Your task to perform on an android device: toggle pop-ups in chrome Image 0: 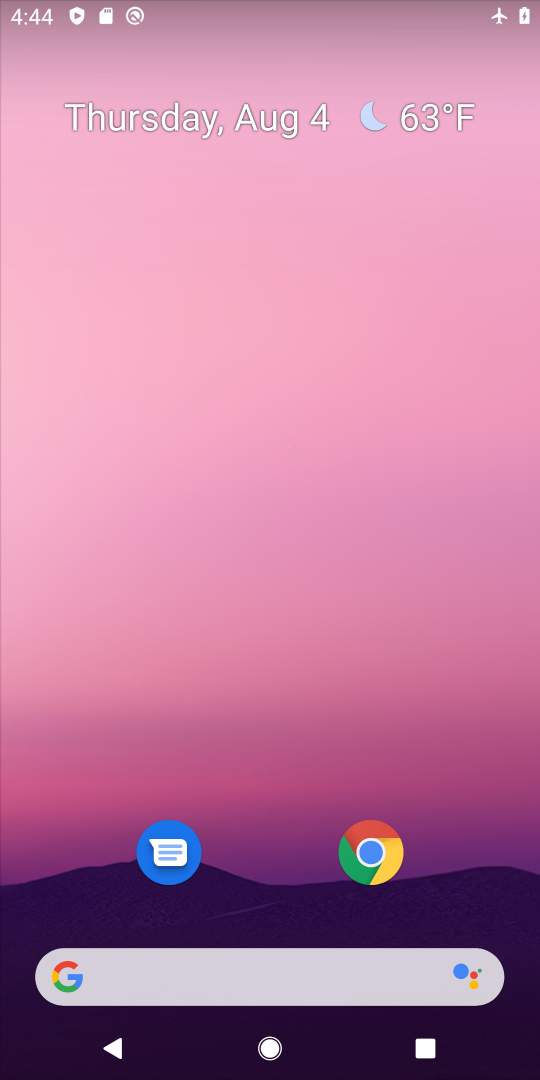
Step 0: click (399, 847)
Your task to perform on an android device: toggle pop-ups in chrome Image 1: 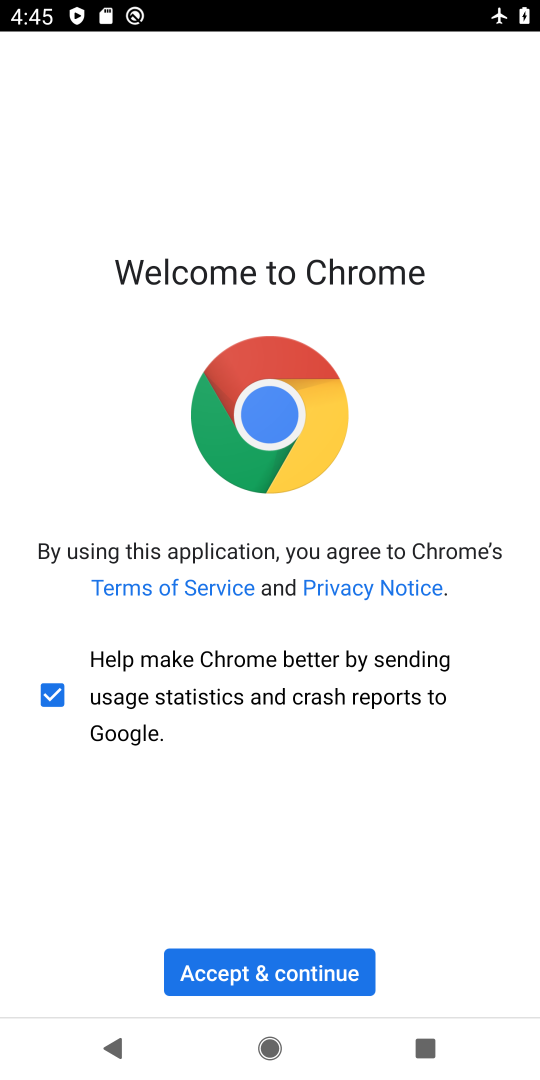
Step 1: click (303, 979)
Your task to perform on an android device: toggle pop-ups in chrome Image 2: 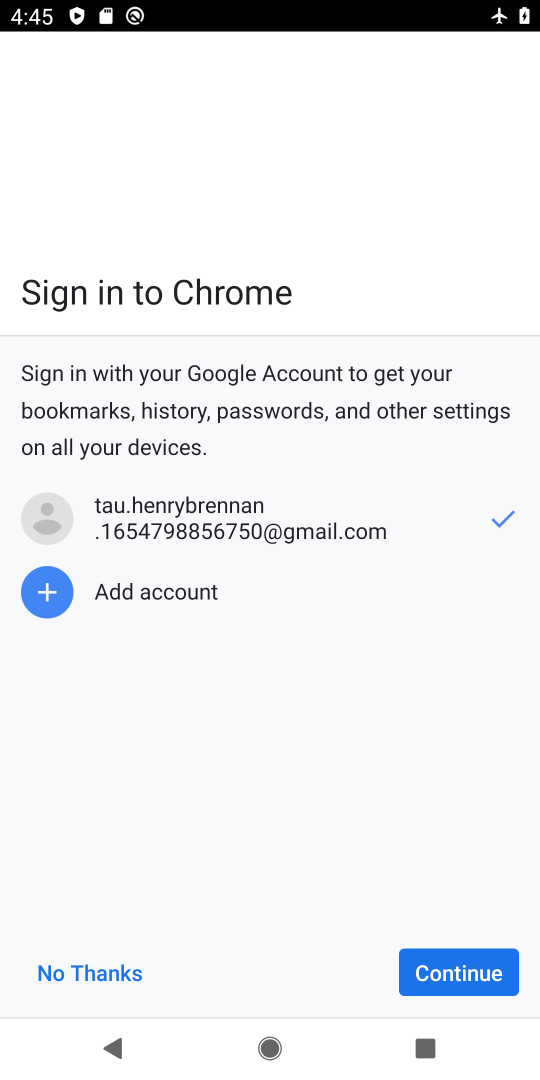
Step 2: click (441, 978)
Your task to perform on an android device: toggle pop-ups in chrome Image 3: 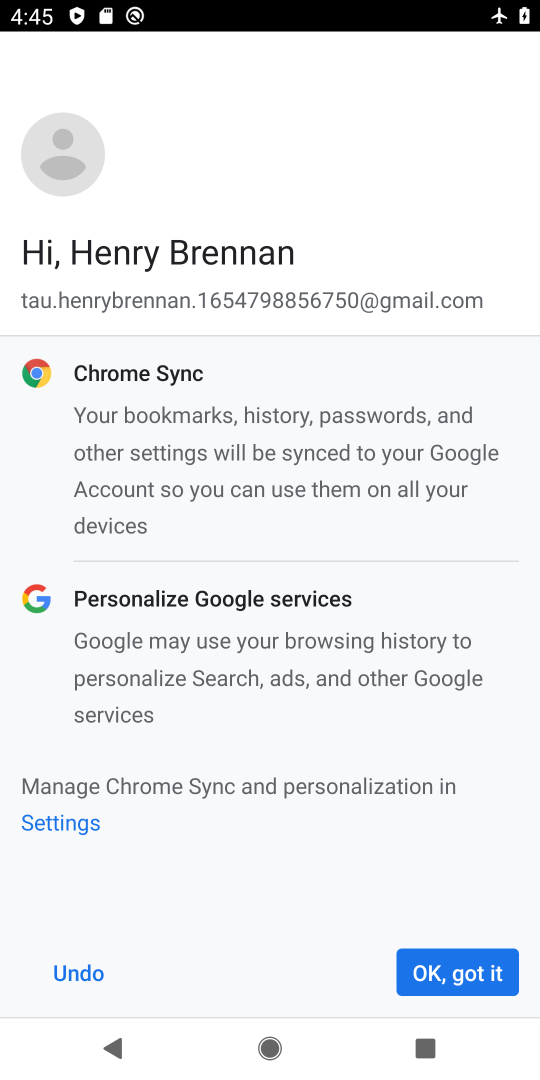
Step 3: click (453, 974)
Your task to perform on an android device: toggle pop-ups in chrome Image 4: 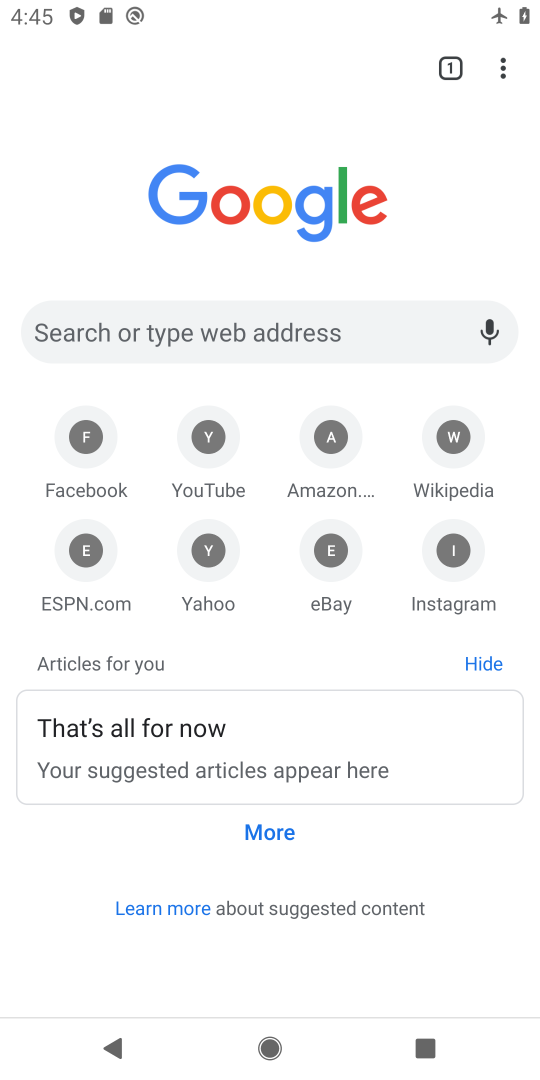
Step 4: click (500, 72)
Your task to perform on an android device: toggle pop-ups in chrome Image 5: 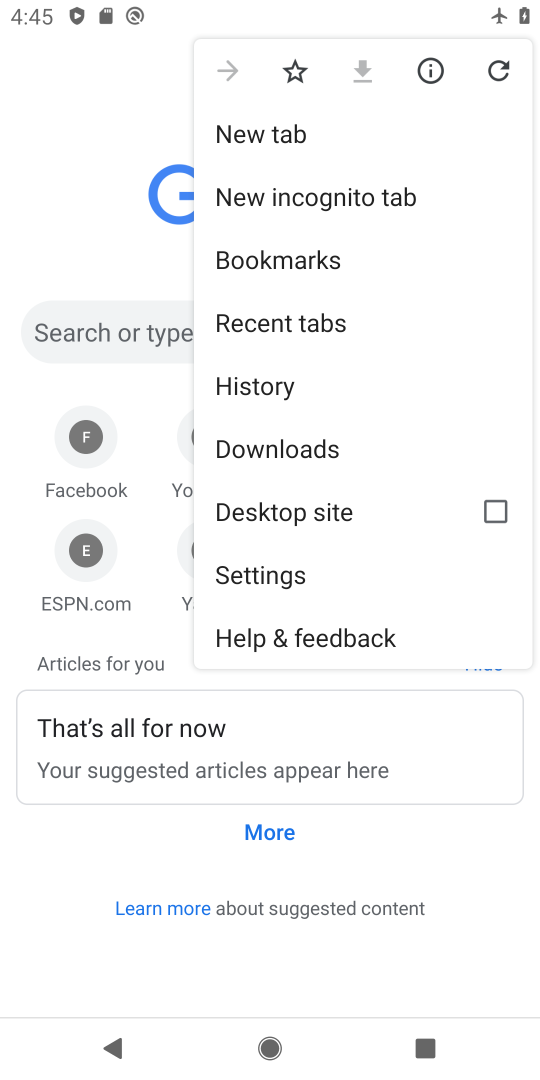
Step 5: click (265, 568)
Your task to perform on an android device: toggle pop-ups in chrome Image 6: 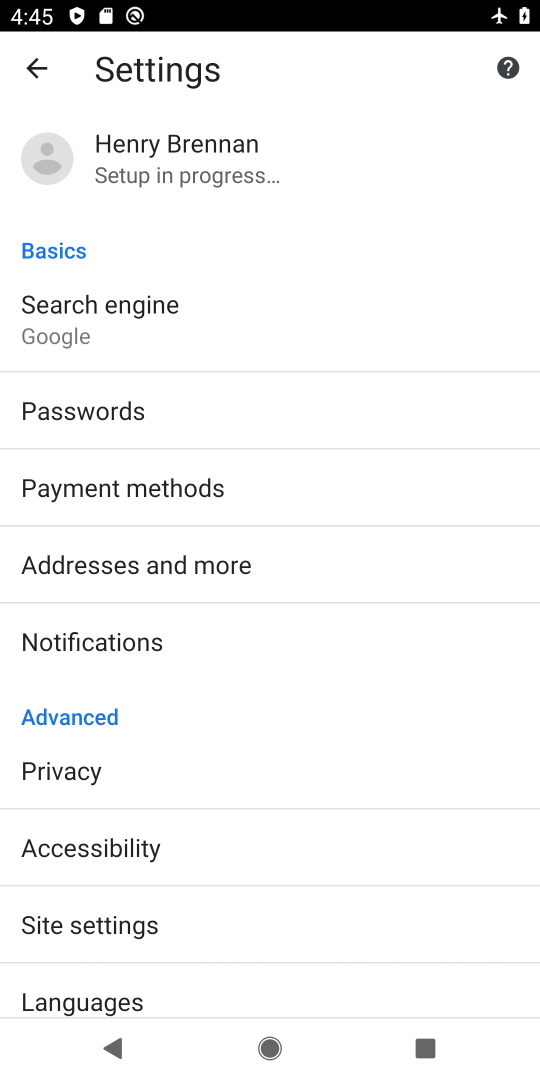
Step 6: click (123, 915)
Your task to perform on an android device: toggle pop-ups in chrome Image 7: 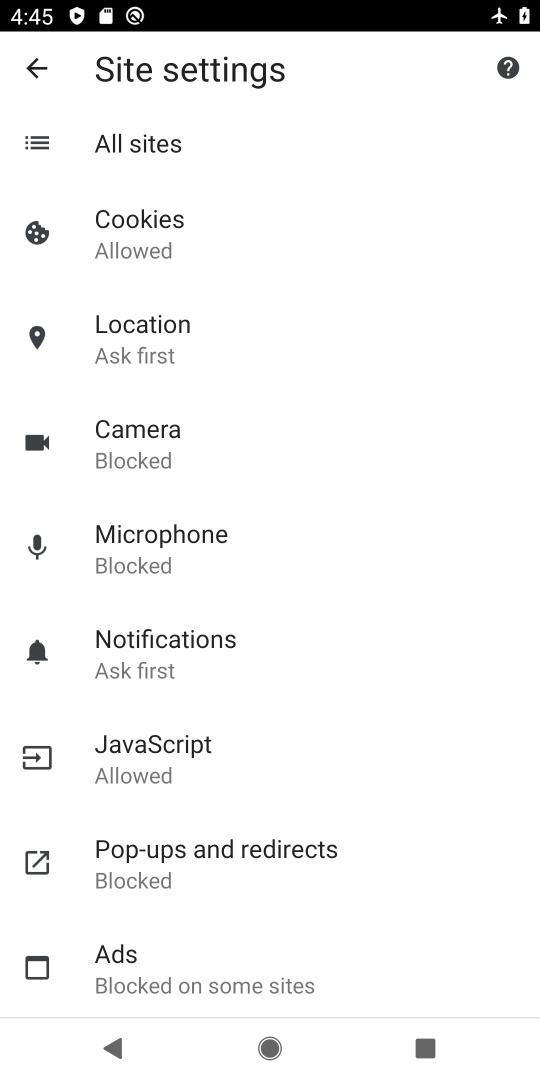
Step 7: click (124, 866)
Your task to perform on an android device: toggle pop-ups in chrome Image 8: 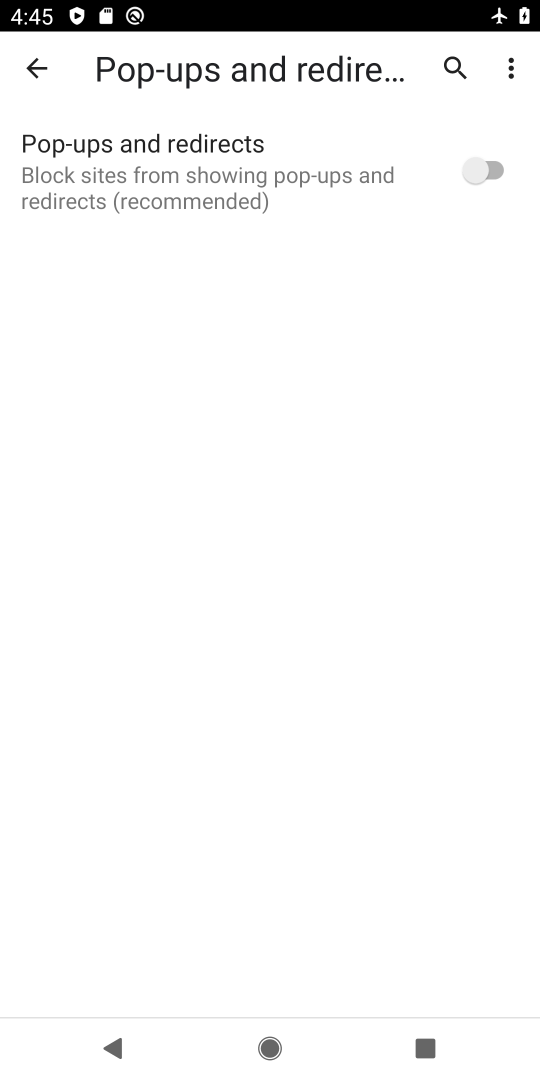
Step 8: click (492, 176)
Your task to perform on an android device: toggle pop-ups in chrome Image 9: 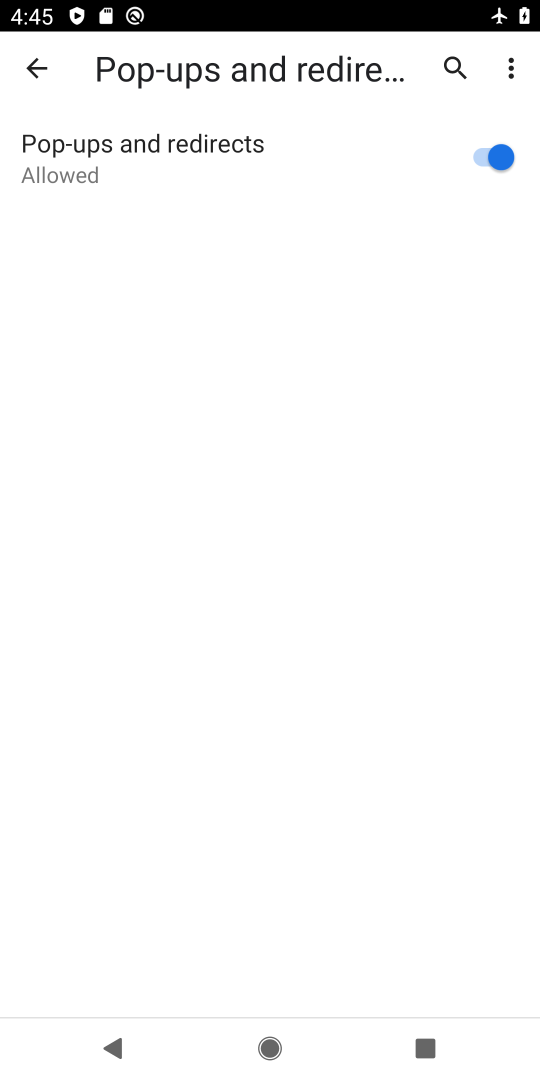
Step 9: task complete